Your task to perform on an android device: Open the phone app and click the voicemail tab. Image 0: 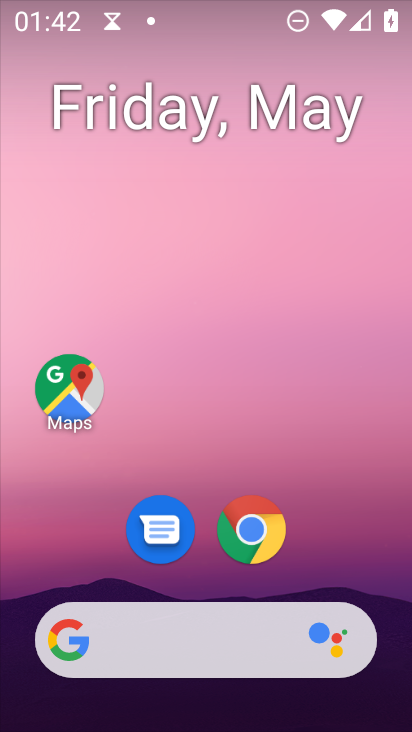
Step 0: drag from (341, 564) to (327, 245)
Your task to perform on an android device: Open the phone app and click the voicemail tab. Image 1: 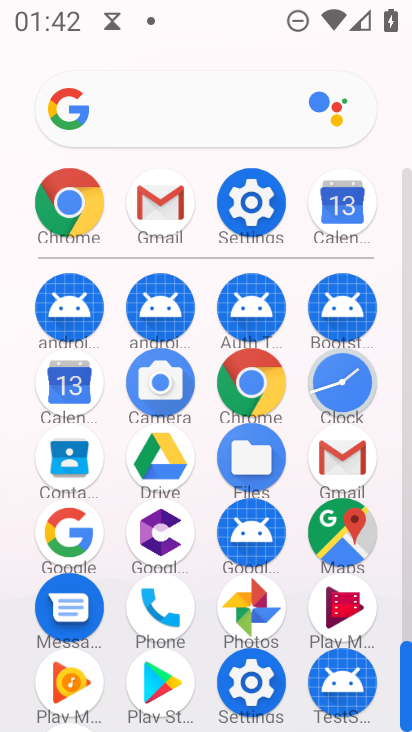
Step 1: click (160, 620)
Your task to perform on an android device: Open the phone app and click the voicemail tab. Image 2: 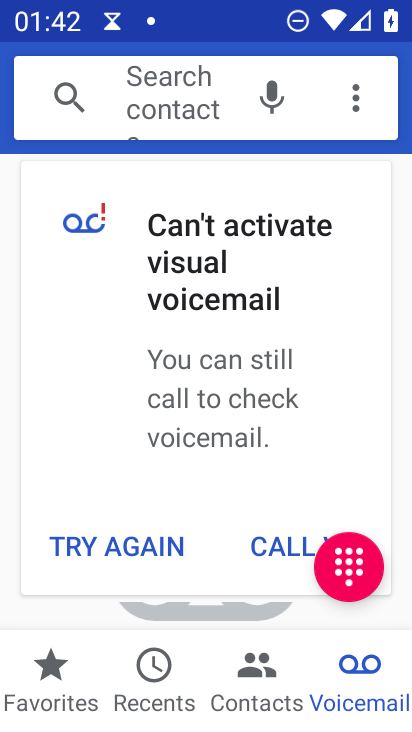
Step 2: task complete